Your task to perform on an android device: Open location settings Image 0: 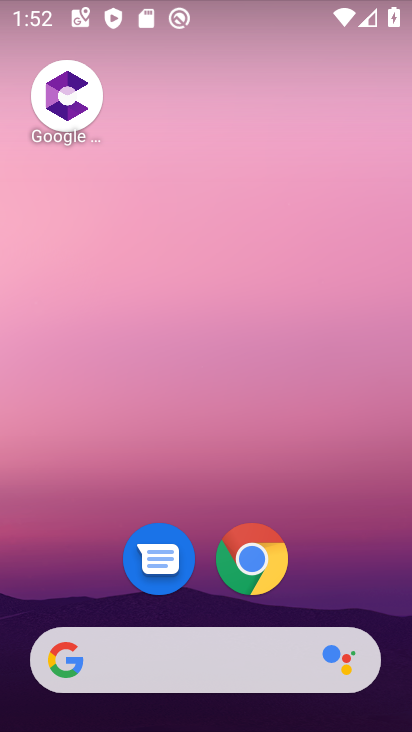
Step 0: drag from (217, 622) to (309, 137)
Your task to perform on an android device: Open location settings Image 1: 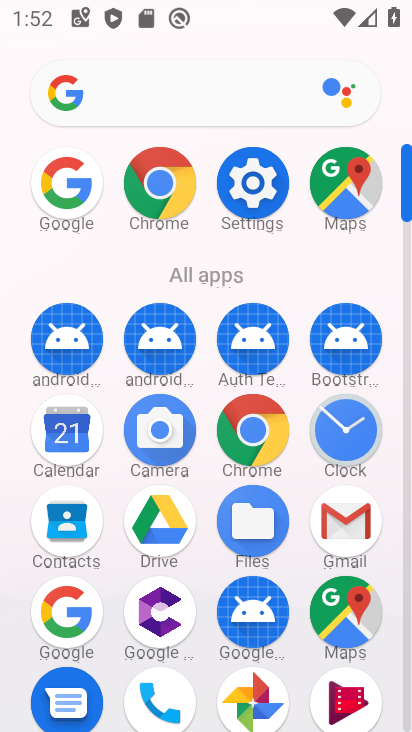
Step 1: click (248, 189)
Your task to perform on an android device: Open location settings Image 2: 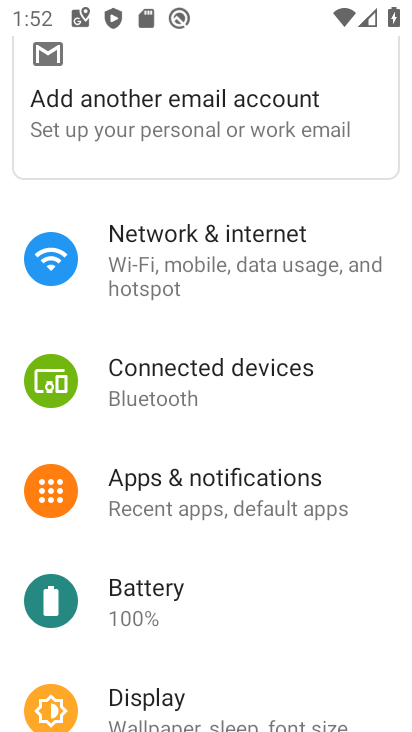
Step 2: drag from (176, 637) to (228, 322)
Your task to perform on an android device: Open location settings Image 3: 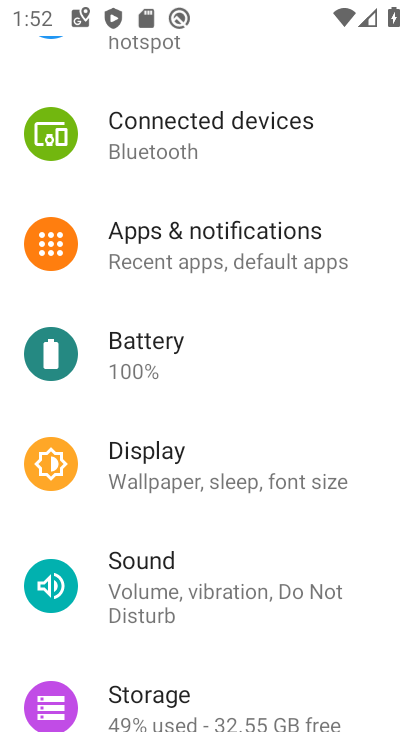
Step 3: drag from (163, 614) to (195, 244)
Your task to perform on an android device: Open location settings Image 4: 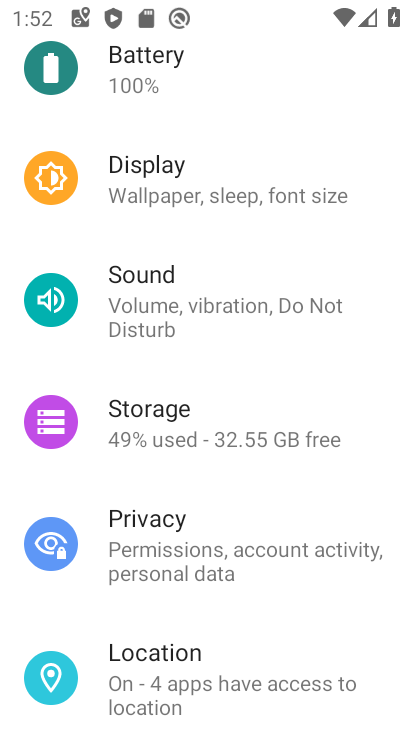
Step 4: click (132, 655)
Your task to perform on an android device: Open location settings Image 5: 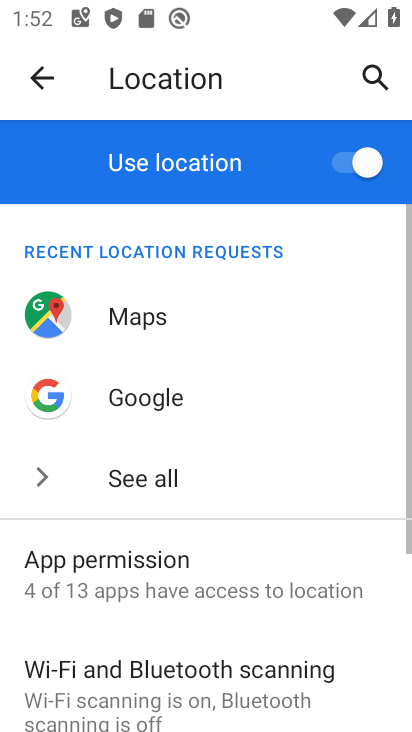
Step 5: drag from (156, 575) to (181, 253)
Your task to perform on an android device: Open location settings Image 6: 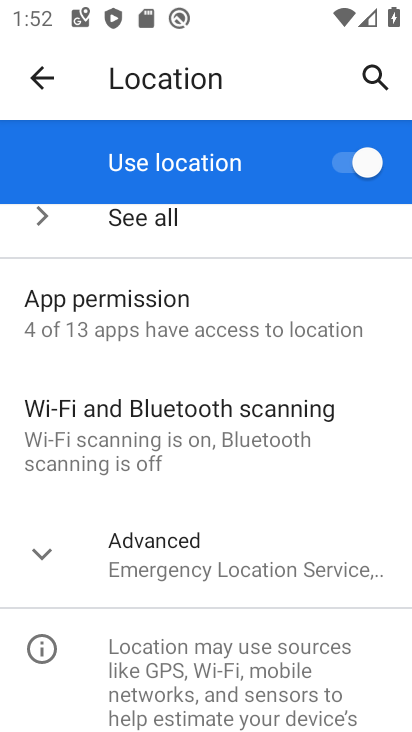
Step 6: drag from (96, 661) to (158, 416)
Your task to perform on an android device: Open location settings Image 7: 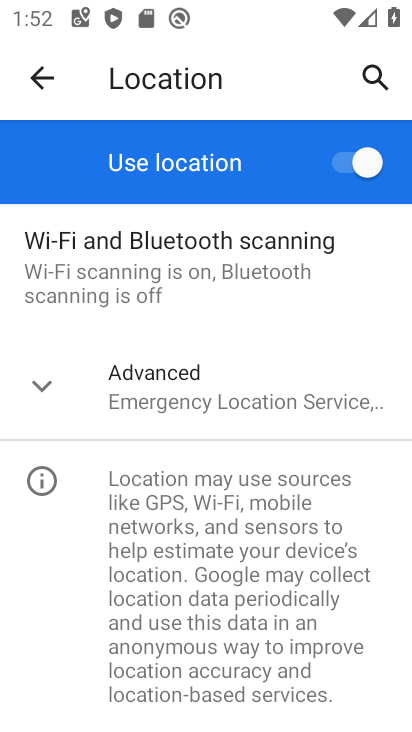
Step 7: drag from (157, 719) to (266, 352)
Your task to perform on an android device: Open location settings Image 8: 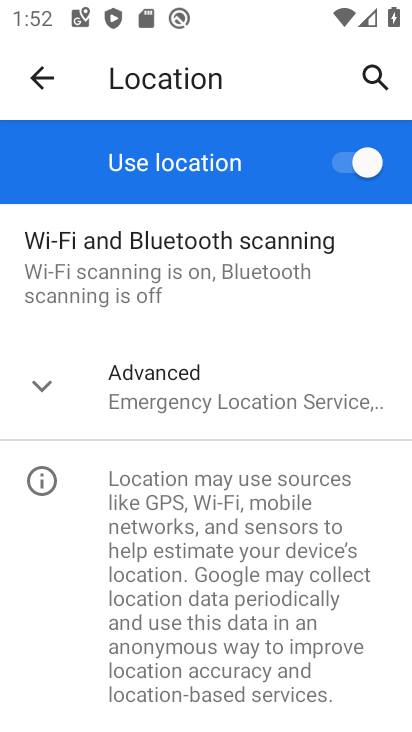
Step 8: click (215, 371)
Your task to perform on an android device: Open location settings Image 9: 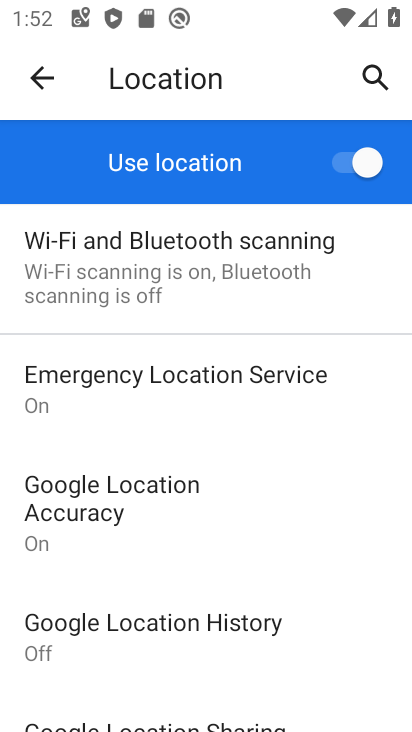
Step 9: task complete